Your task to perform on an android device: Go to location settings Image 0: 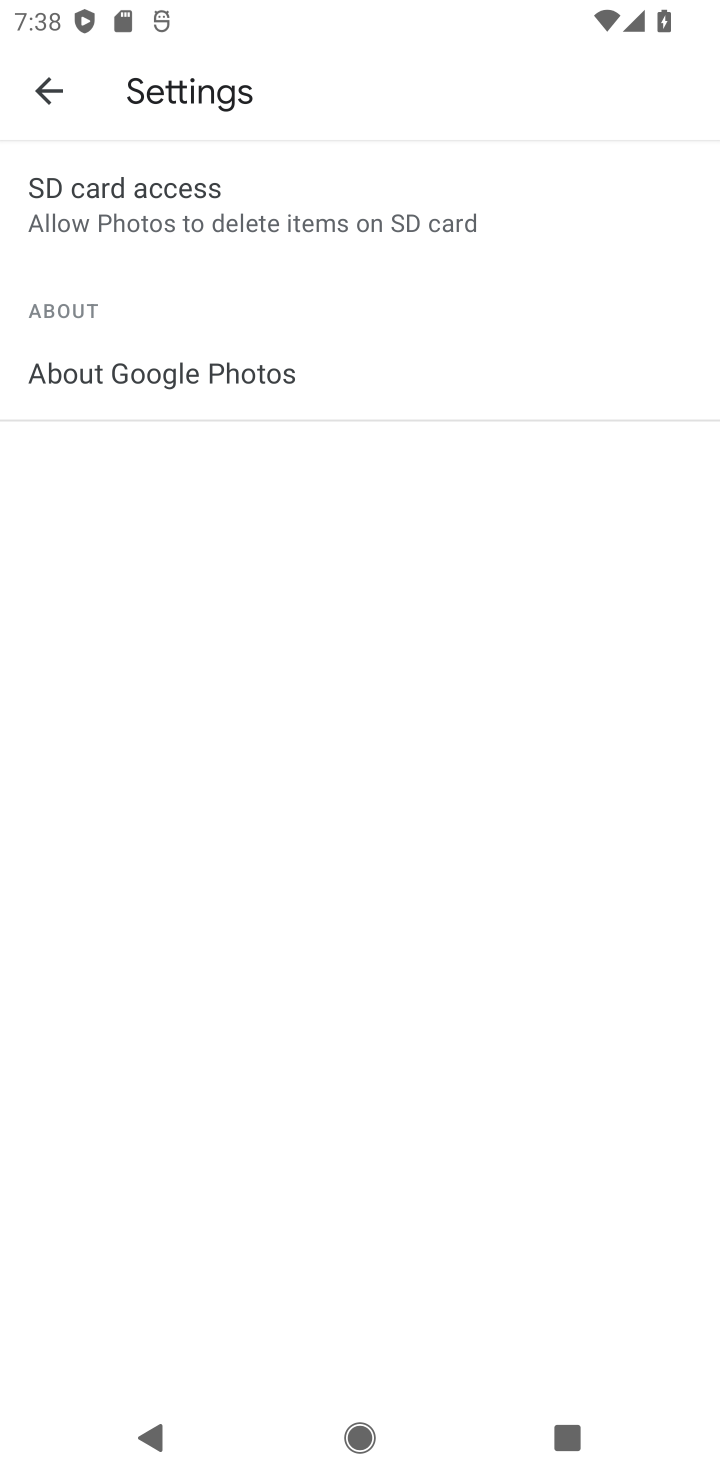
Step 0: press home button
Your task to perform on an android device: Go to location settings Image 1: 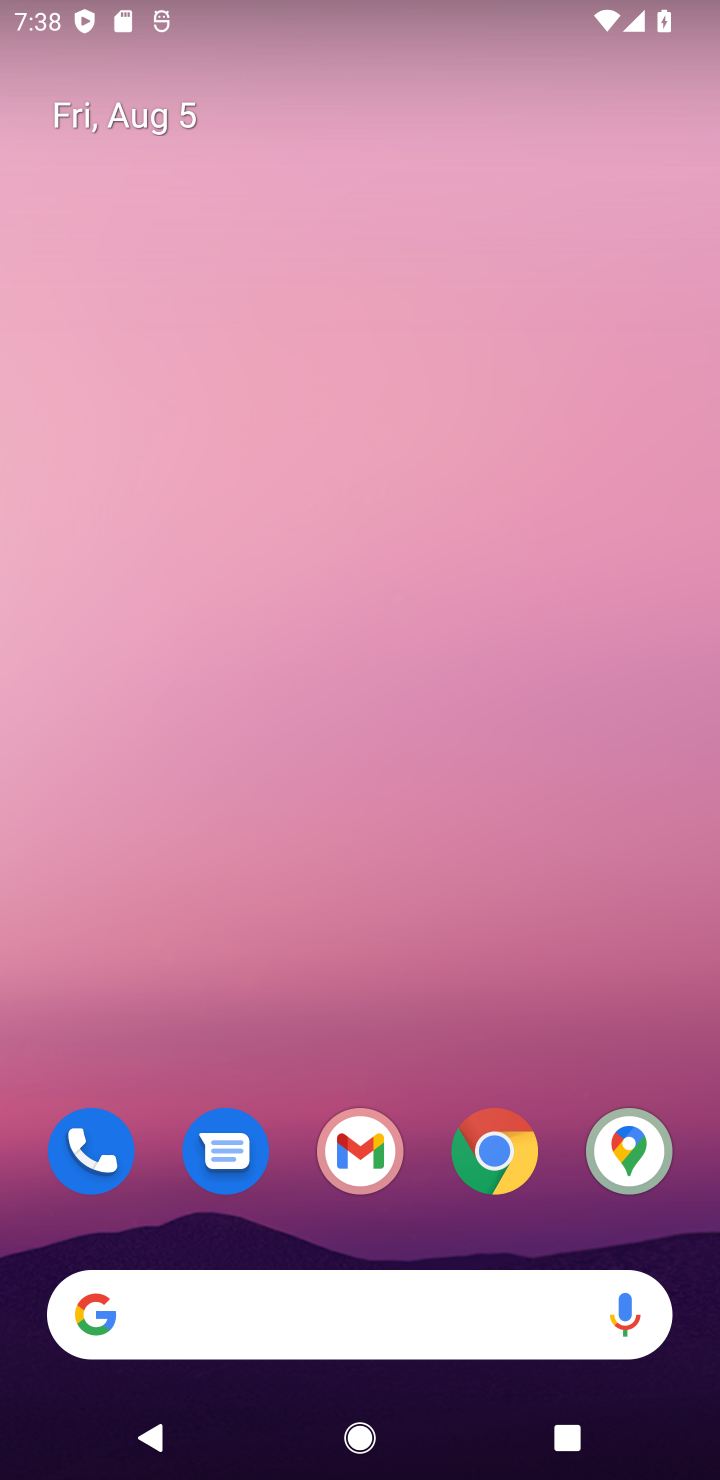
Step 1: drag from (347, 1234) to (272, 183)
Your task to perform on an android device: Go to location settings Image 2: 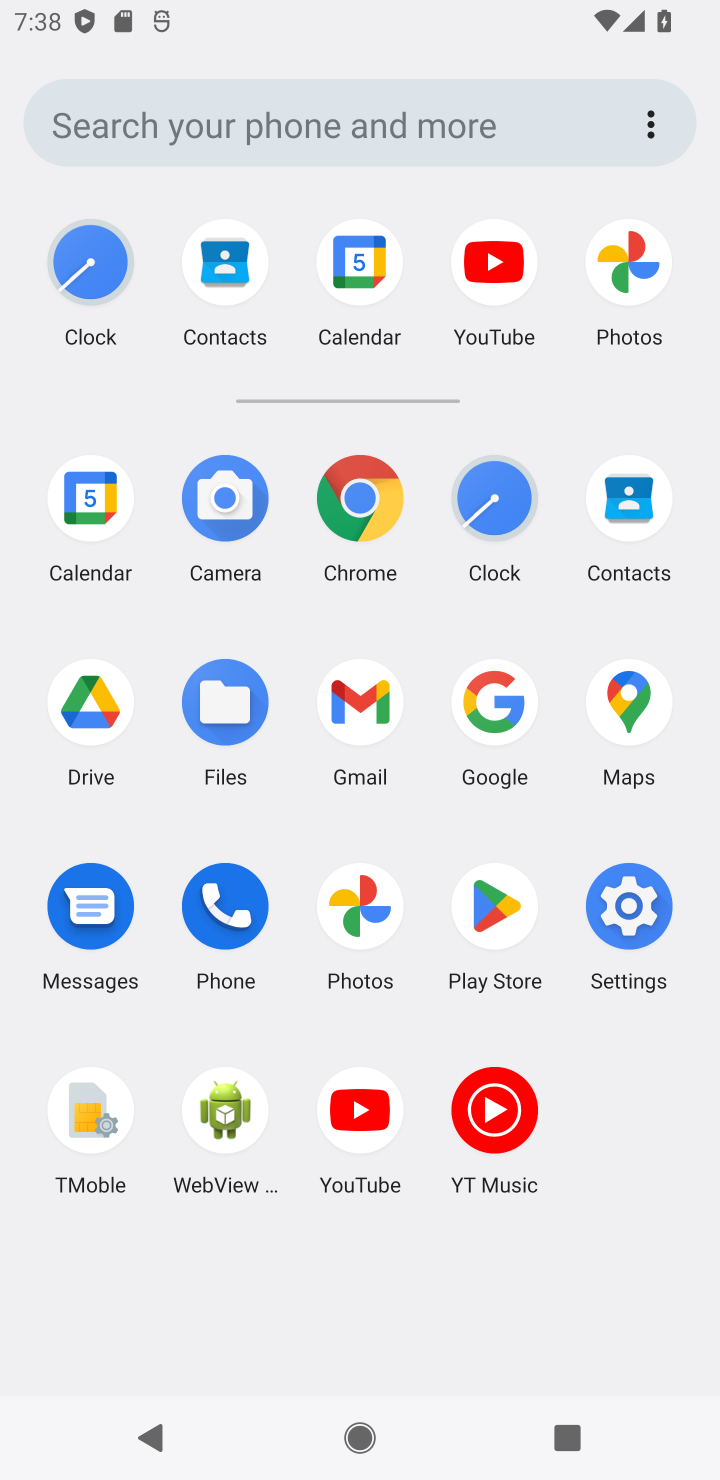
Step 2: click (610, 911)
Your task to perform on an android device: Go to location settings Image 3: 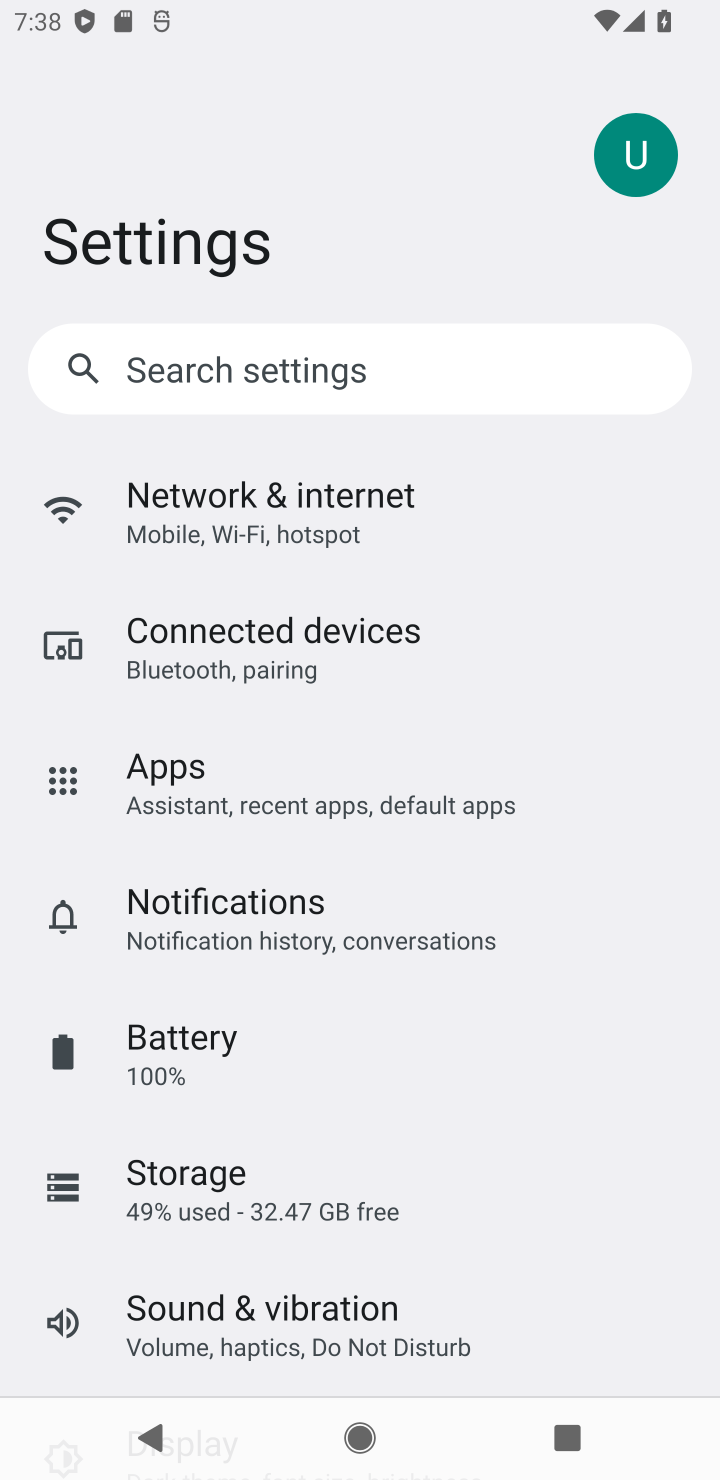
Step 3: drag from (483, 1063) to (485, 366)
Your task to perform on an android device: Go to location settings Image 4: 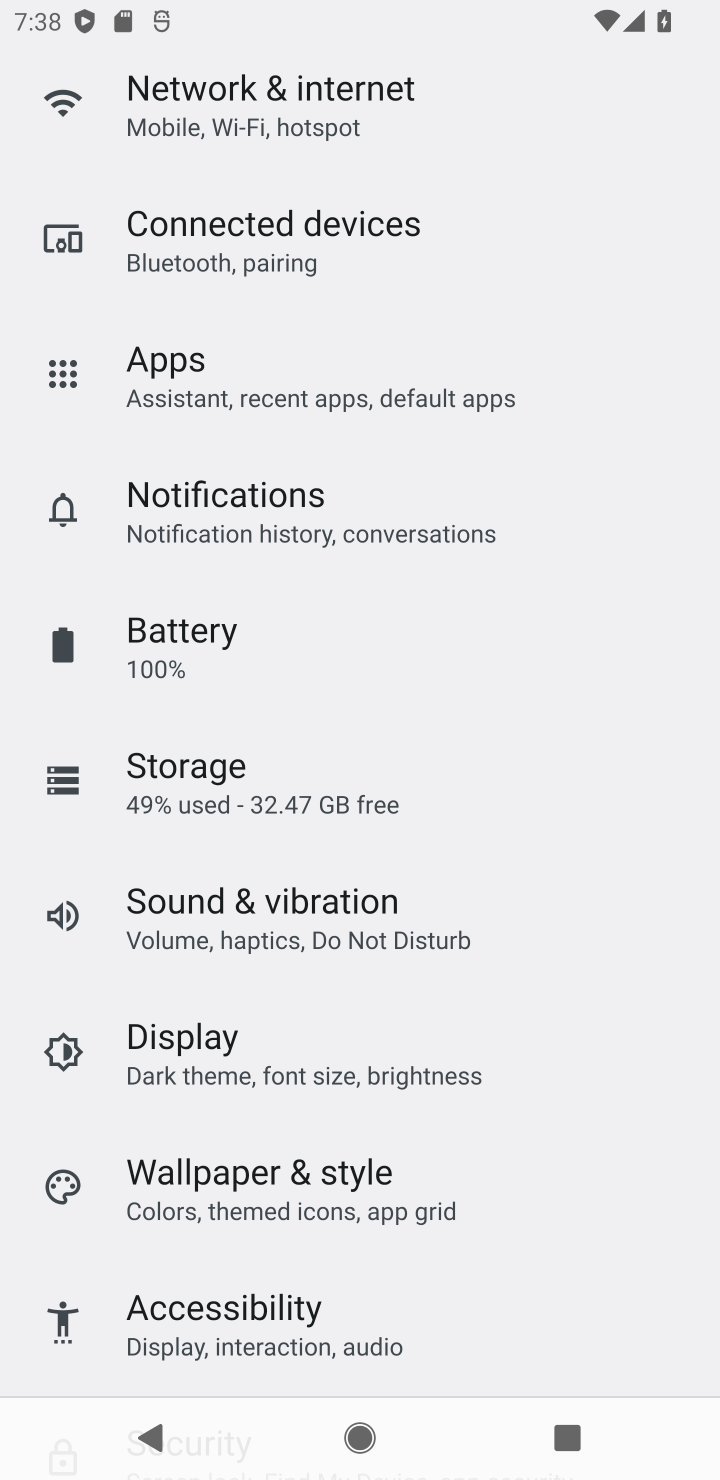
Step 4: drag from (357, 1055) to (382, 354)
Your task to perform on an android device: Go to location settings Image 5: 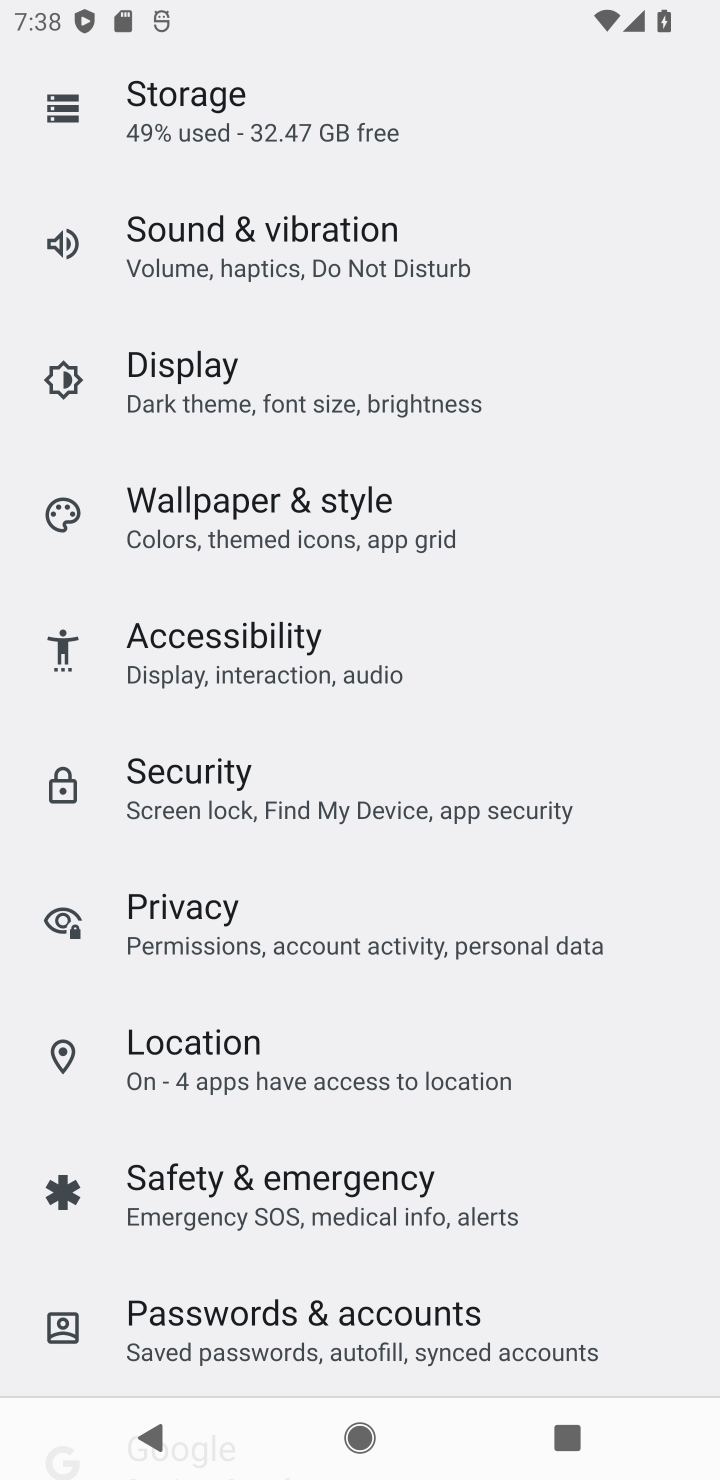
Step 5: click (156, 1034)
Your task to perform on an android device: Go to location settings Image 6: 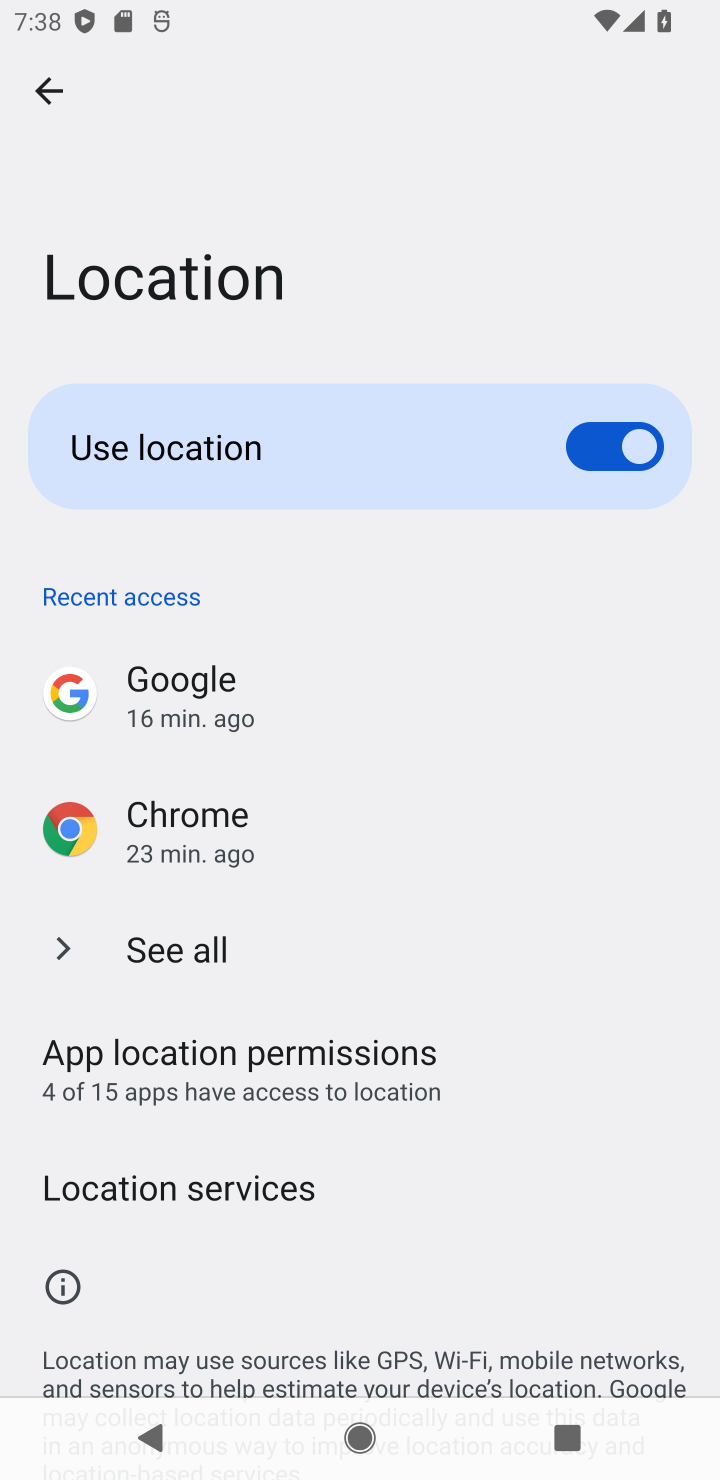
Step 6: task complete